Your task to perform on an android device: Go to accessibility settings Image 0: 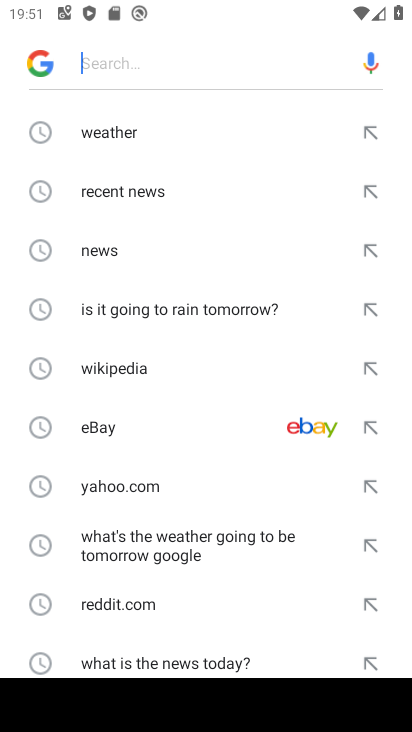
Step 0: press home button
Your task to perform on an android device: Go to accessibility settings Image 1: 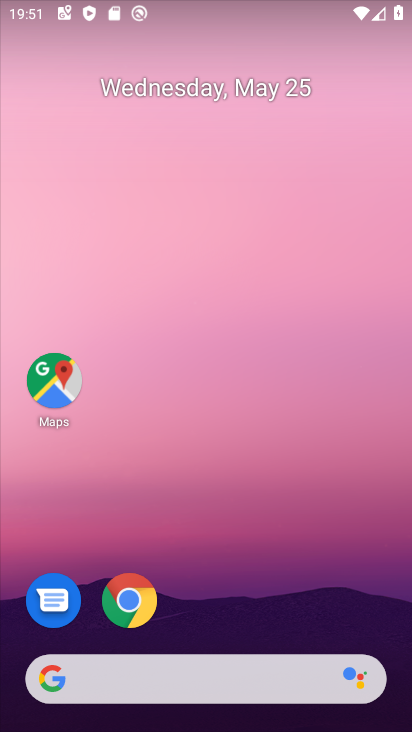
Step 1: drag from (326, 546) to (304, 188)
Your task to perform on an android device: Go to accessibility settings Image 2: 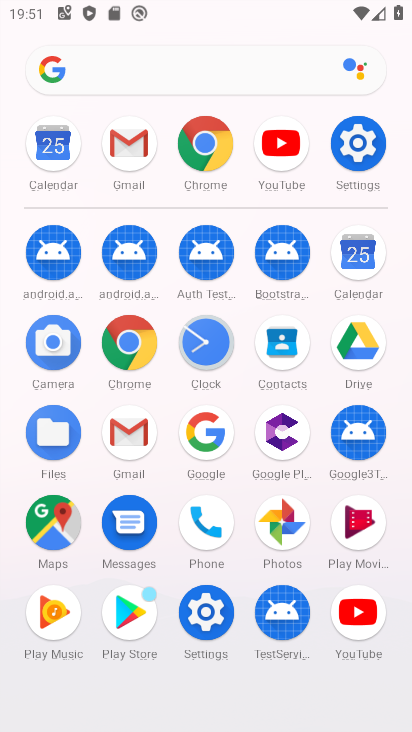
Step 2: click (336, 159)
Your task to perform on an android device: Go to accessibility settings Image 3: 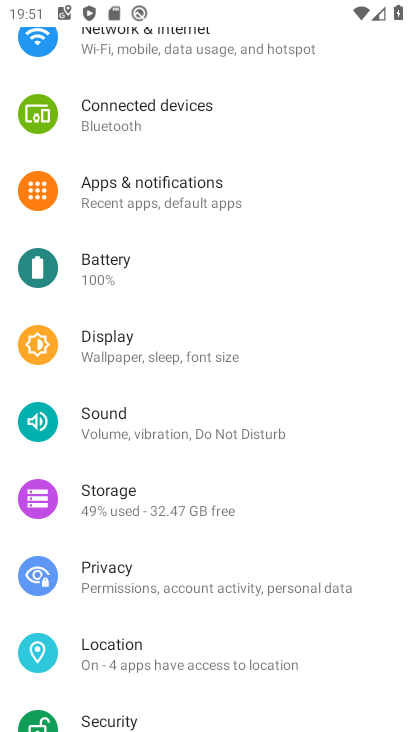
Step 3: drag from (229, 621) to (244, 320)
Your task to perform on an android device: Go to accessibility settings Image 4: 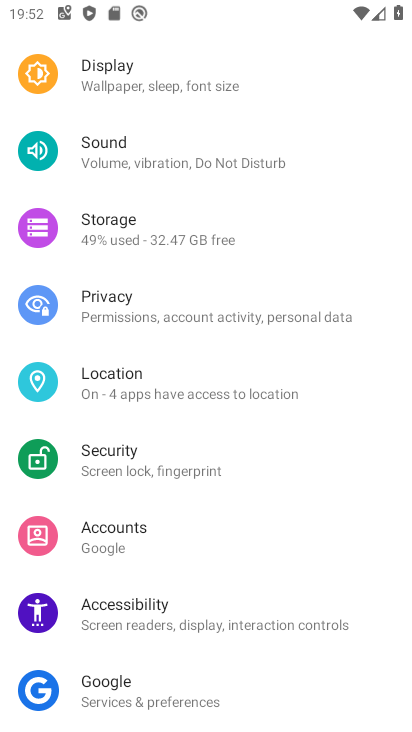
Step 4: click (179, 617)
Your task to perform on an android device: Go to accessibility settings Image 5: 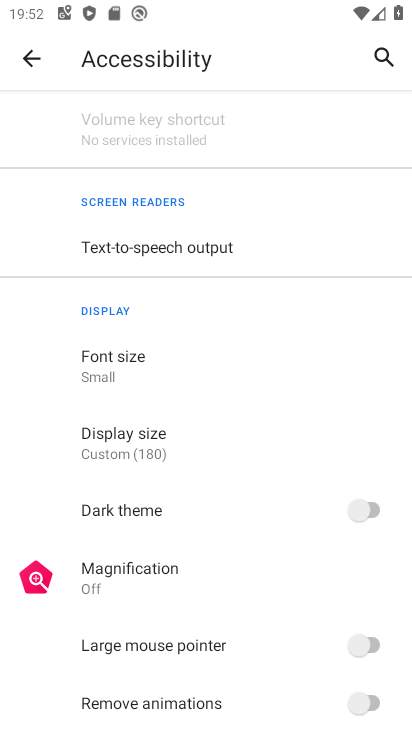
Step 5: task complete